Your task to perform on an android device: change the clock display to analog Image 0: 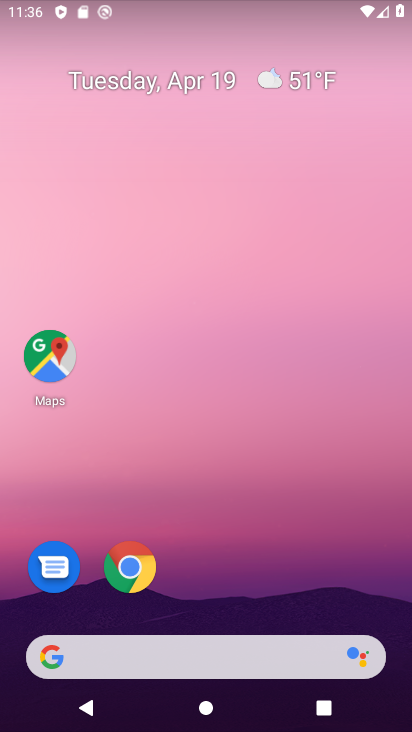
Step 0: click (128, 556)
Your task to perform on an android device: change the clock display to analog Image 1: 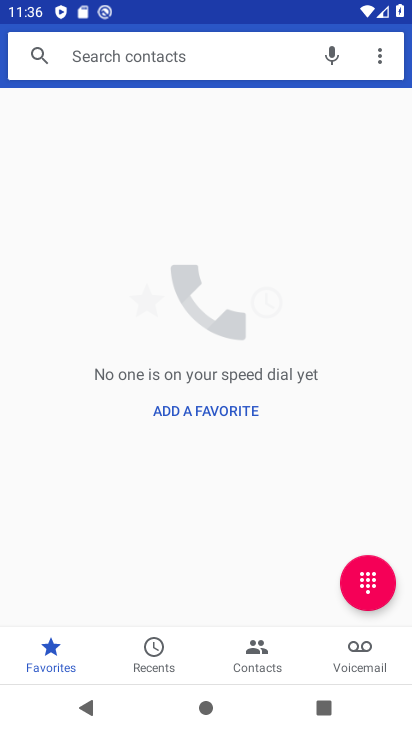
Step 1: press home button
Your task to perform on an android device: change the clock display to analog Image 2: 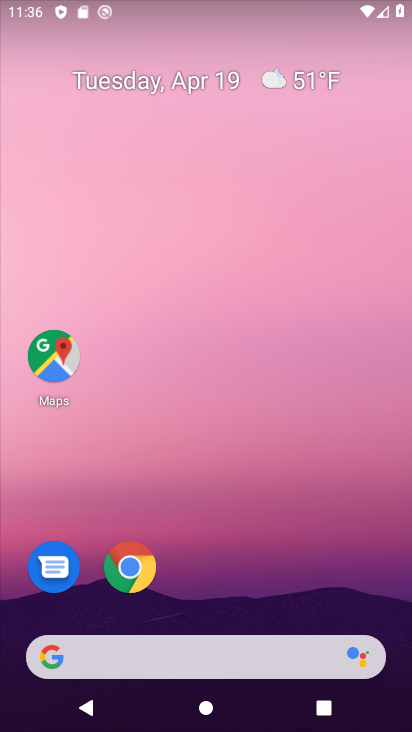
Step 2: click (301, 150)
Your task to perform on an android device: change the clock display to analog Image 3: 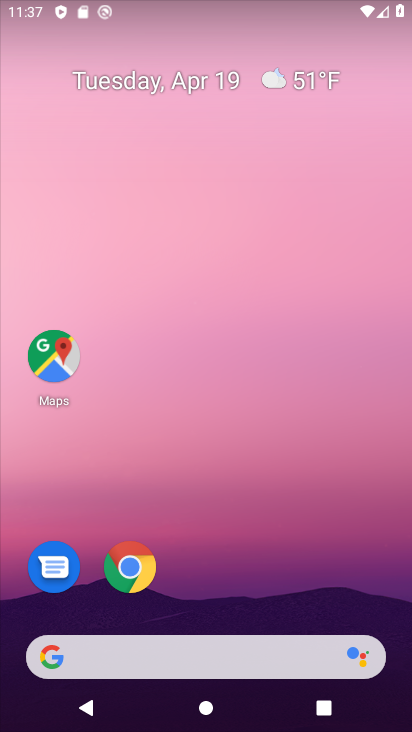
Step 3: drag from (242, 589) to (285, 0)
Your task to perform on an android device: change the clock display to analog Image 4: 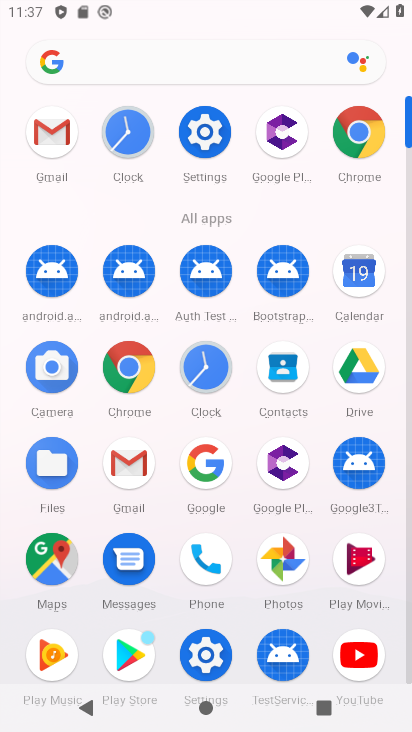
Step 4: click (209, 358)
Your task to perform on an android device: change the clock display to analog Image 5: 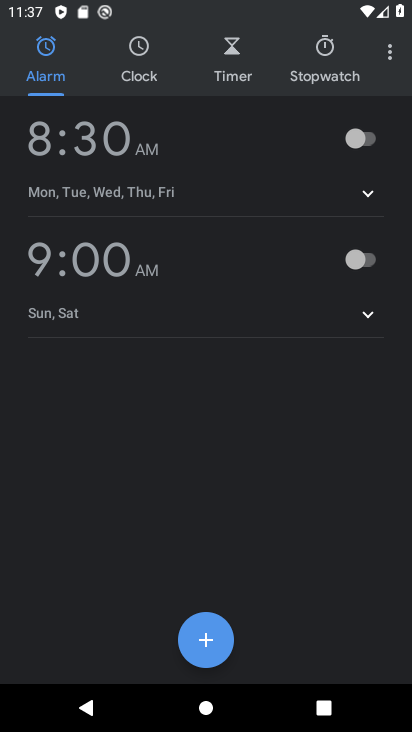
Step 5: click (388, 54)
Your task to perform on an android device: change the clock display to analog Image 6: 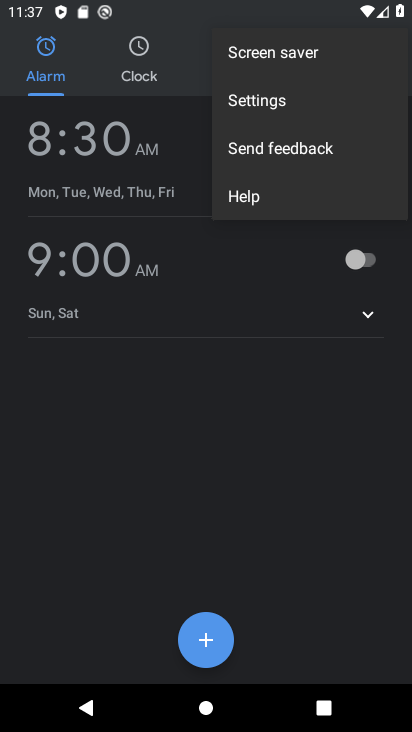
Step 6: click (262, 103)
Your task to perform on an android device: change the clock display to analog Image 7: 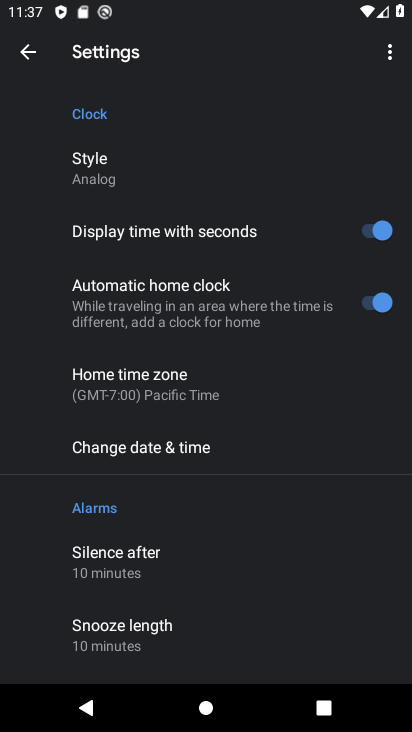
Step 7: task complete